Your task to perform on an android device: Open calendar and show me the third week of next month Image 0: 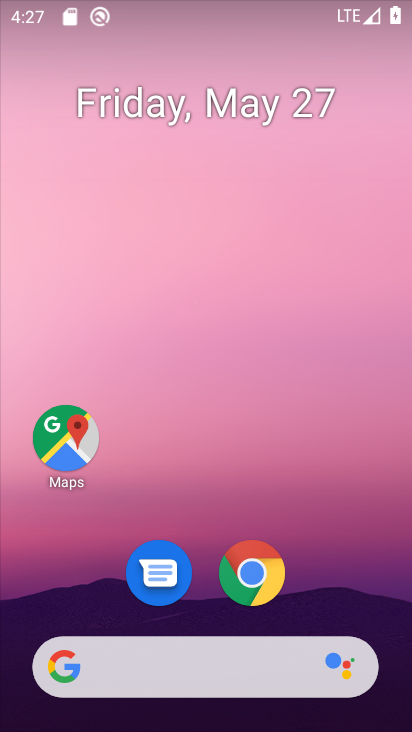
Step 0: drag from (267, 499) to (300, 32)
Your task to perform on an android device: Open calendar and show me the third week of next month Image 1: 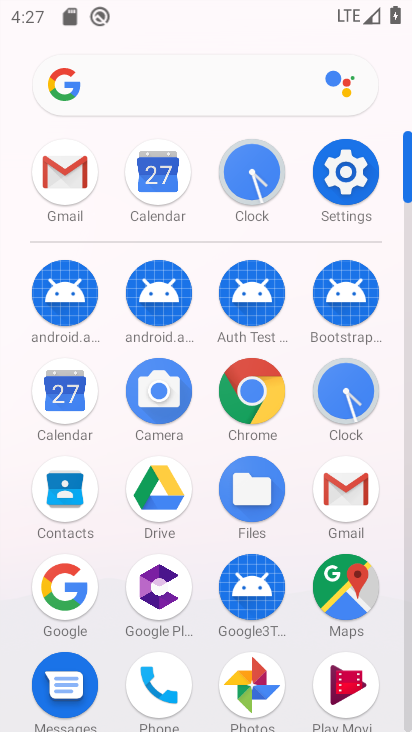
Step 1: click (171, 182)
Your task to perform on an android device: Open calendar and show me the third week of next month Image 2: 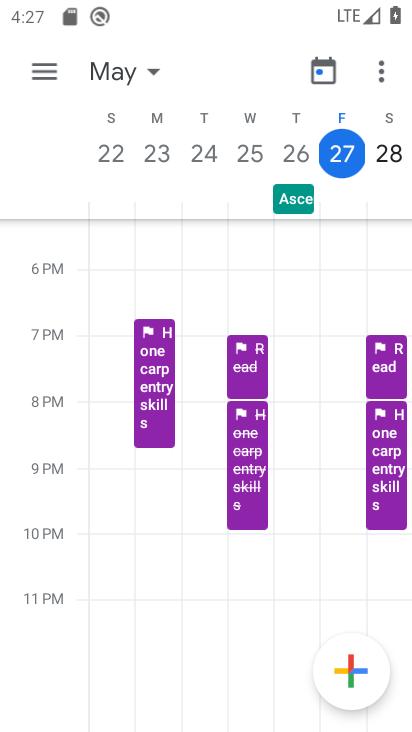
Step 2: task complete